Your task to perform on an android device: Go to Wikipedia Image 0: 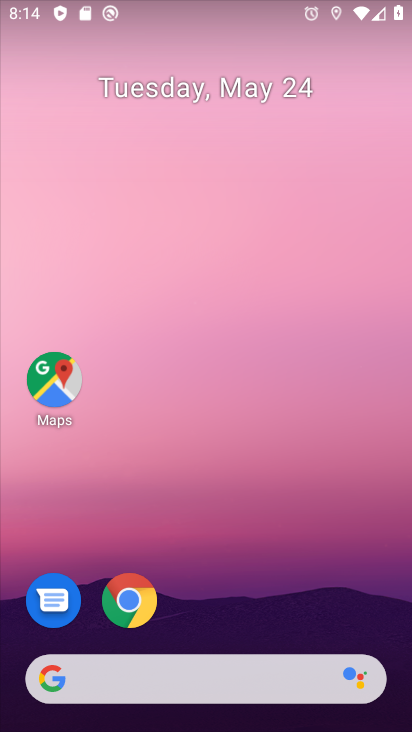
Step 0: click (129, 602)
Your task to perform on an android device: Go to Wikipedia Image 1: 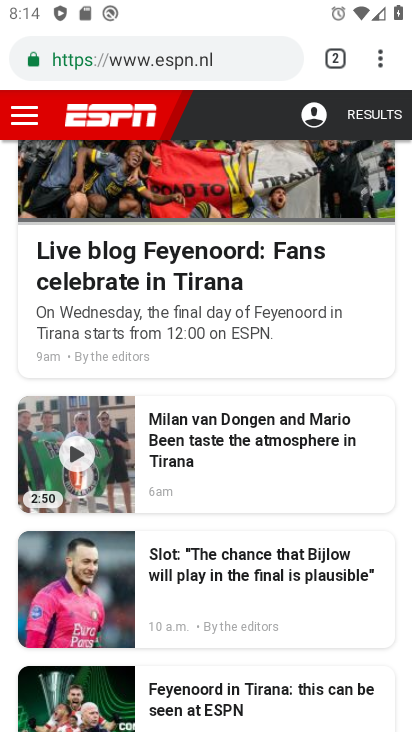
Step 1: click (381, 66)
Your task to perform on an android device: Go to Wikipedia Image 2: 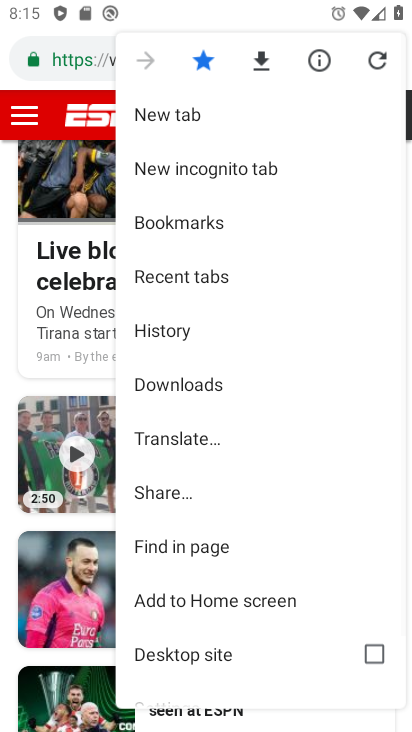
Step 2: click (167, 111)
Your task to perform on an android device: Go to Wikipedia Image 3: 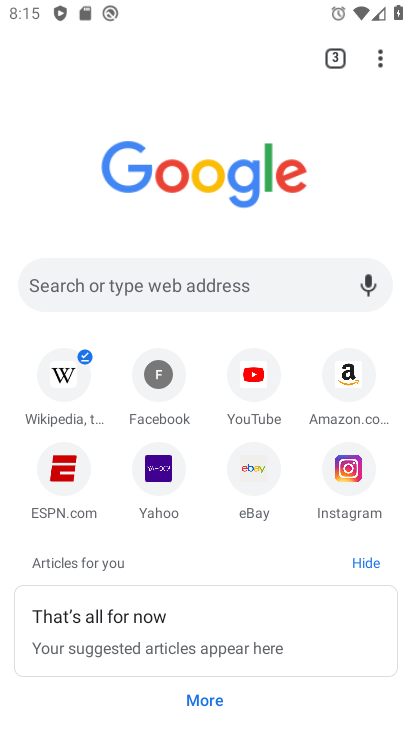
Step 3: click (66, 382)
Your task to perform on an android device: Go to Wikipedia Image 4: 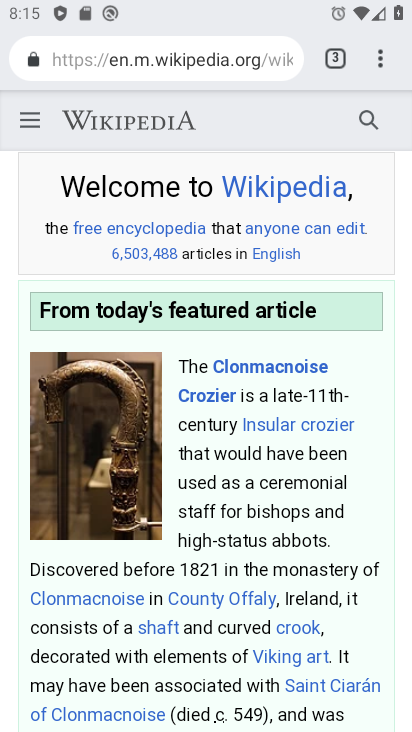
Step 4: task complete